Your task to perform on an android device: add a contact Image 0: 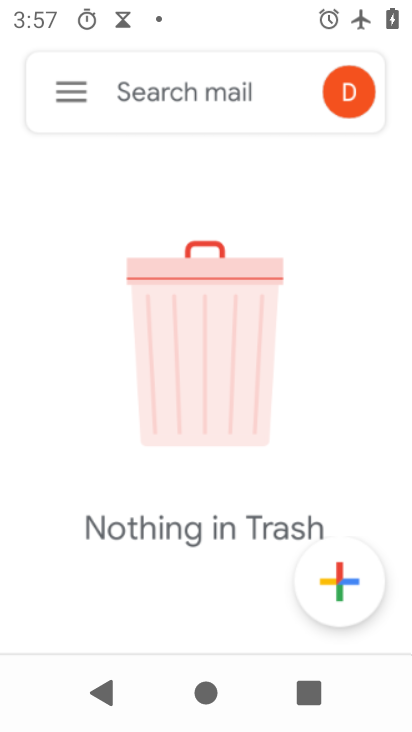
Step 0: drag from (274, 529) to (215, 6)
Your task to perform on an android device: add a contact Image 1: 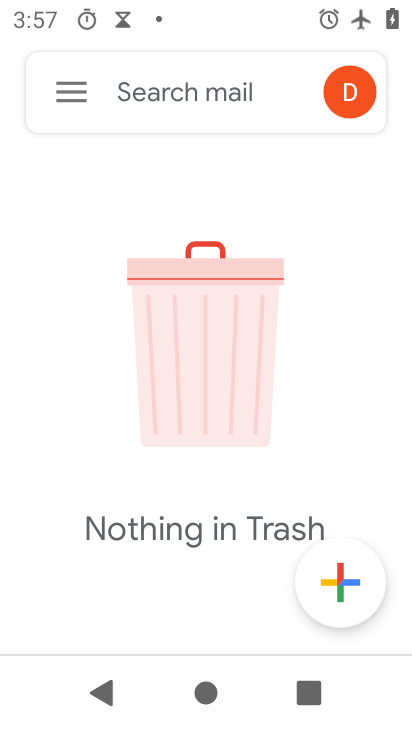
Step 1: press home button
Your task to perform on an android device: add a contact Image 2: 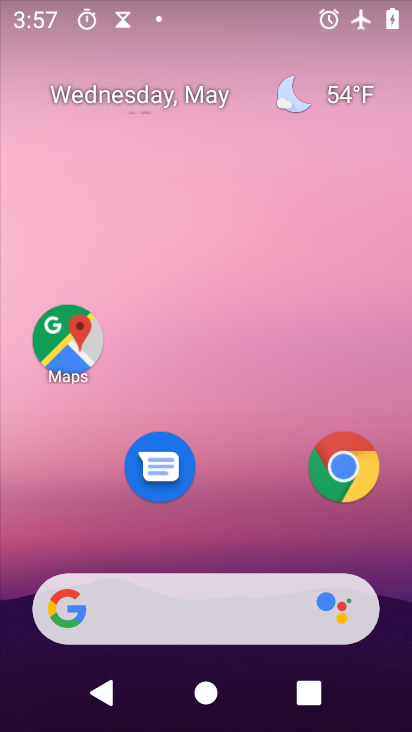
Step 2: drag from (230, 521) to (272, 118)
Your task to perform on an android device: add a contact Image 3: 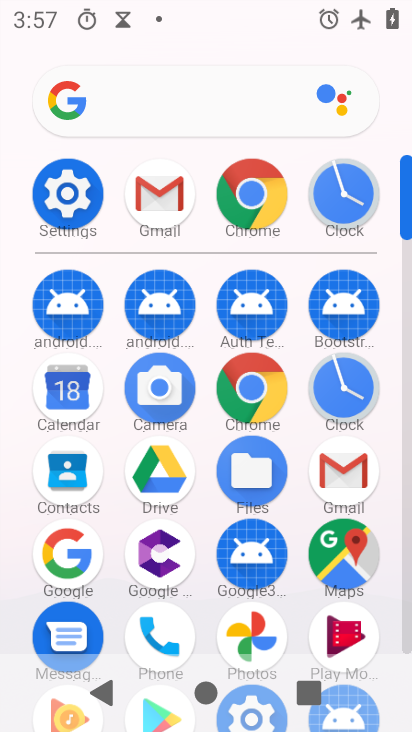
Step 3: click (409, 640)
Your task to perform on an android device: add a contact Image 4: 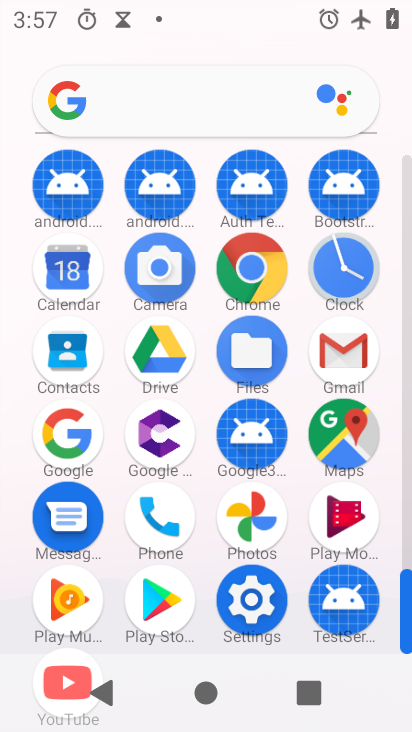
Step 4: click (69, 347)
Your task to perform on an android device: add a contact Image 5: 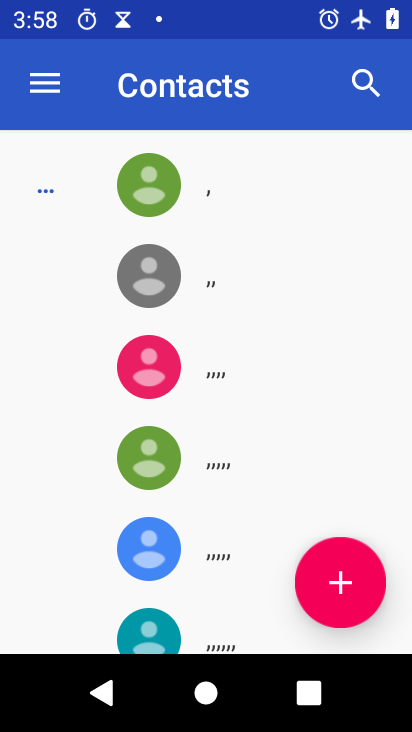
Step 5: click (341, 566)
Your task to perform on an android device: add a contact Image 6: 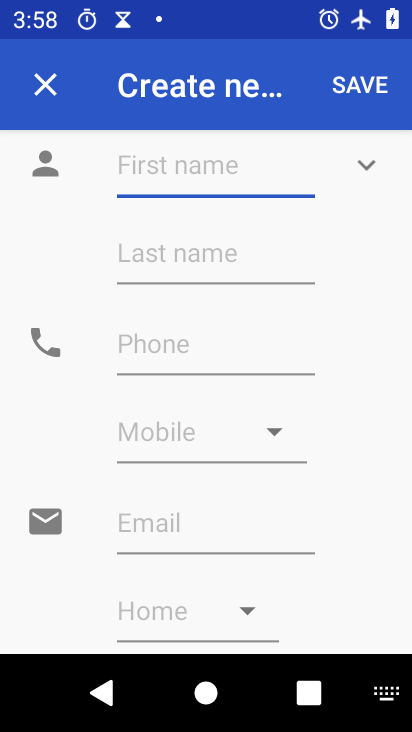
Step 6: click (341, 566)
Your task to perform on an android device: add a contact Image 7: 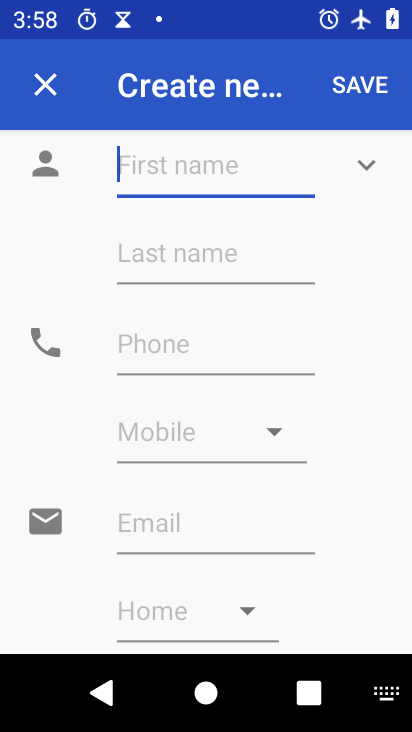
Step 7: click (341, 561)
Your task to perform on an android device: add a contact Image 8: 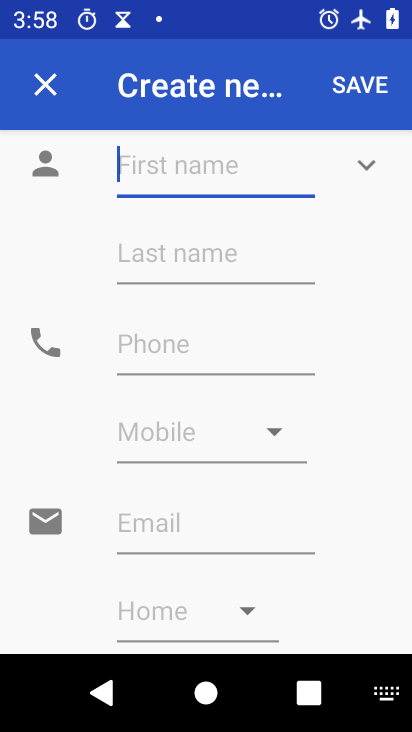
Step 8: click (234, 192)
Your task to perform on an android device: add a contact Image 9: 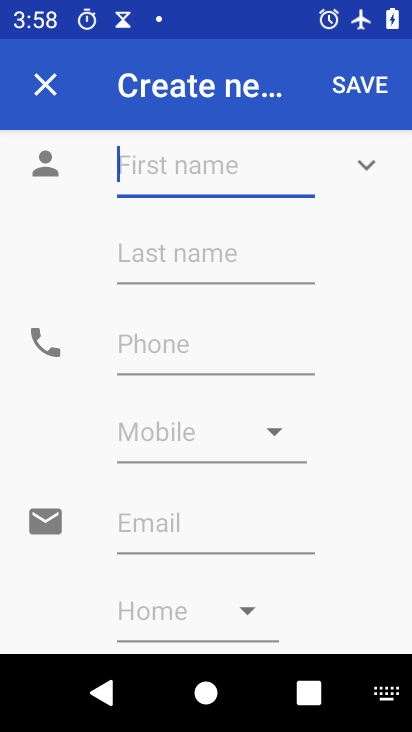
Step 9: type "vjgvjv"
Your task to perform on an android device: add a contact Image 10: 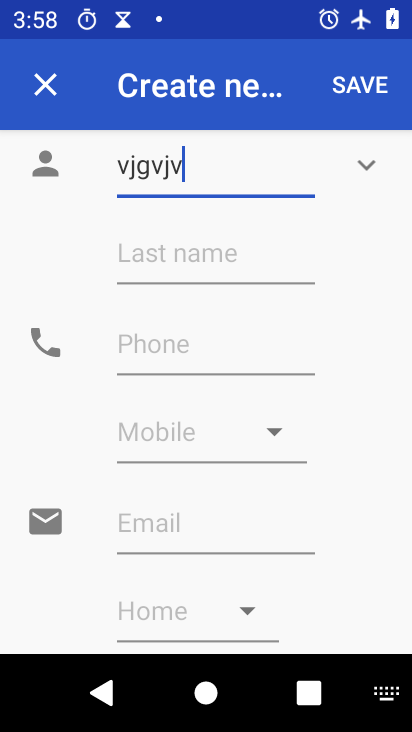
Step 10: click (351, 84)
Your task to perform on an android device: add a contact Image 11: 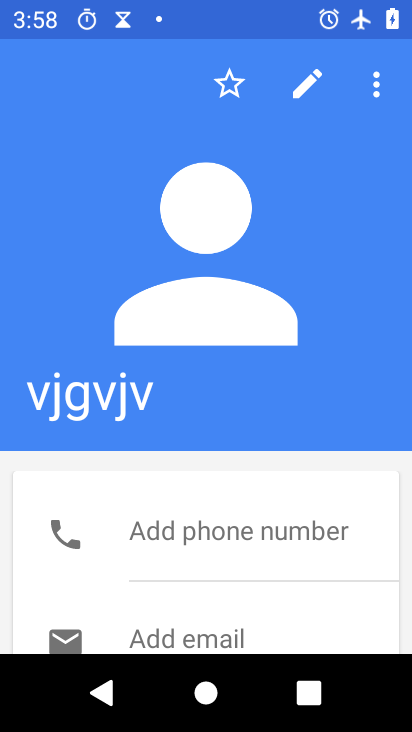
Step 11: task complete